Your task to perform on an android device: Open the calendar app, open the side menu, and click the "Day" option Image 0: 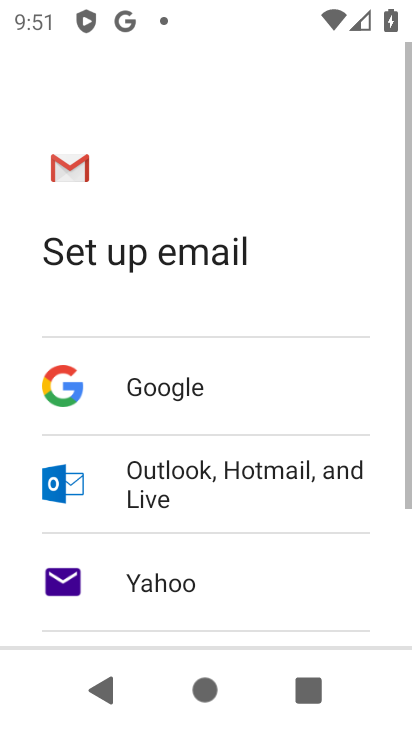
Step 0: press back button
Your task to perform on an android device: Open the calendar app, open the side menu, and click the "Day" option Image 1: 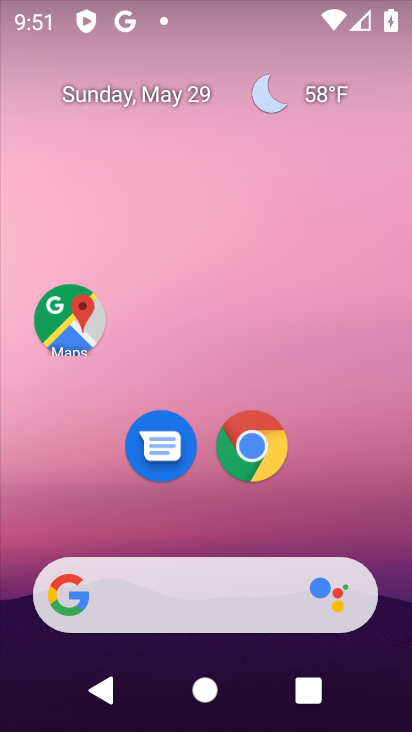
Step 1: drag from (367, 487) to (239, 0)
Your task to perform on an android device: Open the calendar app, open the side menu, and click the "Day" option Image 2: 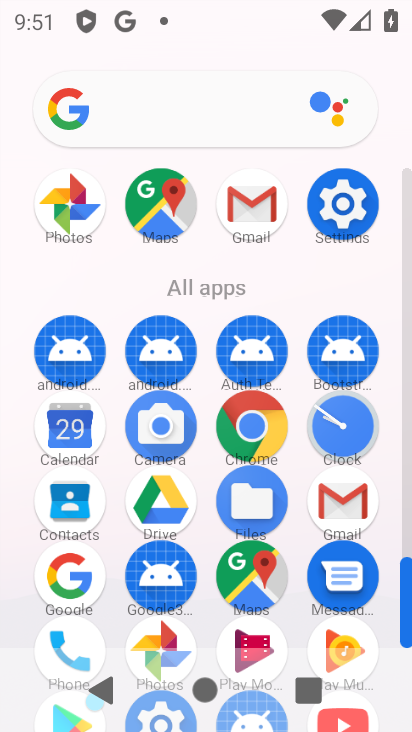
Step 2: drag from (16, 621) to (11, 296)
Your task to perform on an android device: Open the calendar app, open the side menu, and click the "Day" option Image 3: 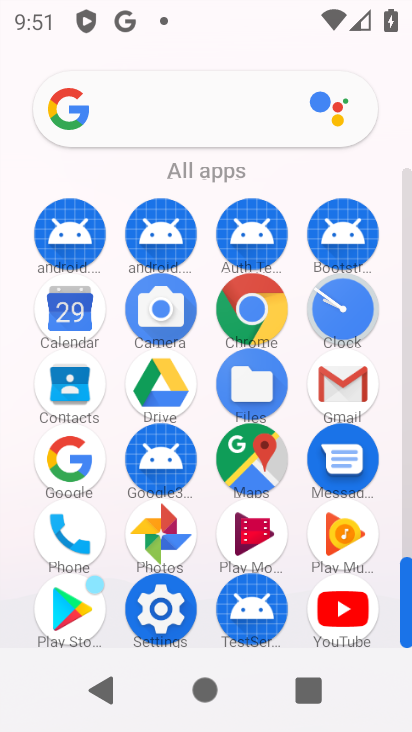
Step 3: click (64, 305)
Your task to perform on an android device: Open the calendar app, open the side menu, and click the "Day" option Image 4: 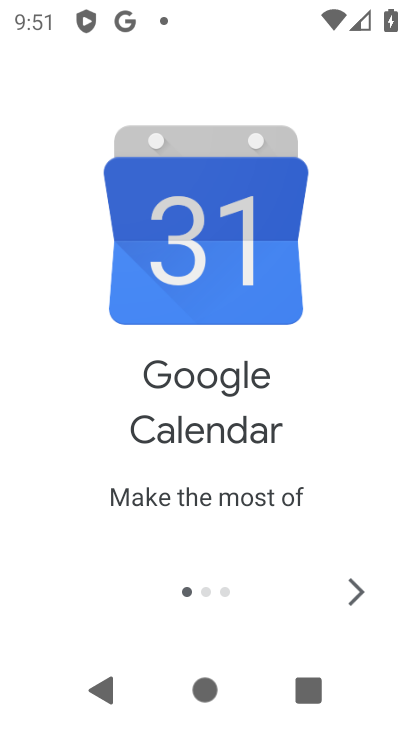
Step 4: click (362, 586)
Your task to perform on an android device: Open the calendar app, open the side menu, and click the "Day" option Image 5: 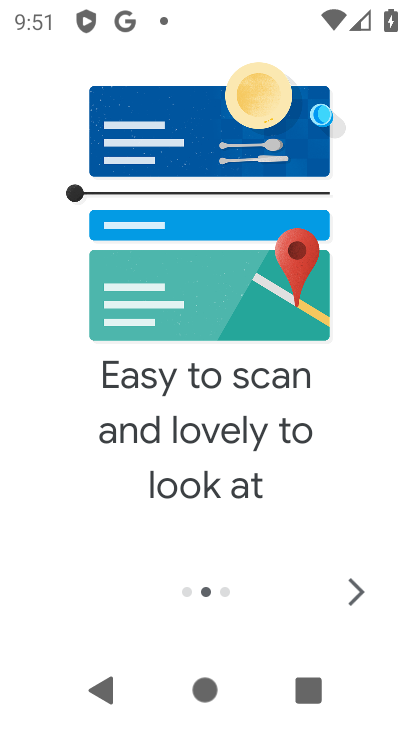
Step 5: click (362, 586)
Your task to perform on an android device: Open the calendar app, open the side menu, and click the "Day" option Image 6: 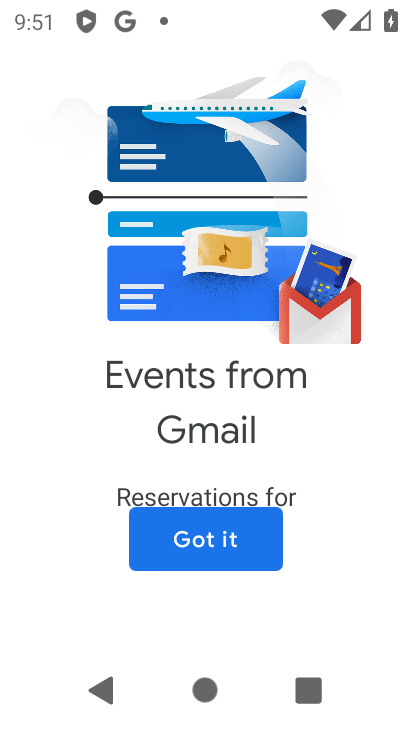
Step 6: click (238, 536)
Your task to perform on an android device: Open the calendar app, open the side menu, and click the "Day" option Image 7: 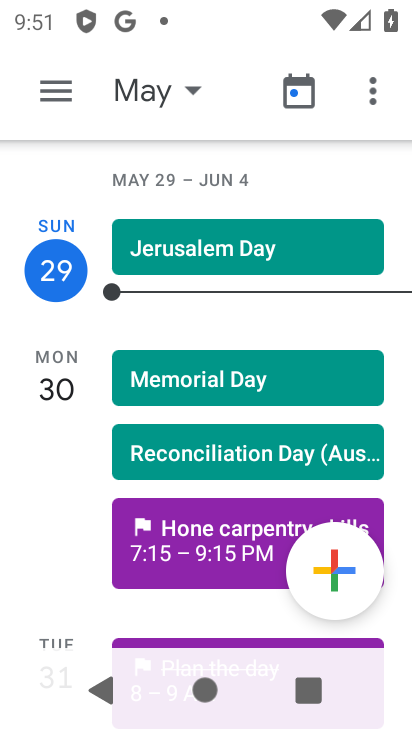
Step 7: click (67, 73)
Your task to perform on an android device: Open the calendar app, open the side menu, and click the "Day" option Image 8: 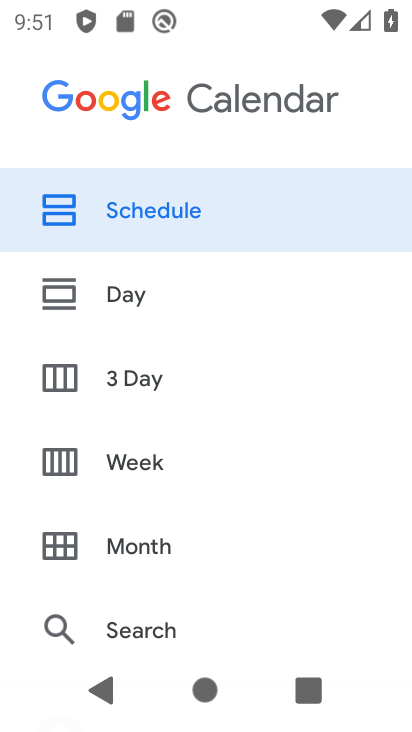
Step 8: click (130, 305)
Your task to perform on an android device: Open the calendar app, open the side menu, and click the "Day" option Image 9: 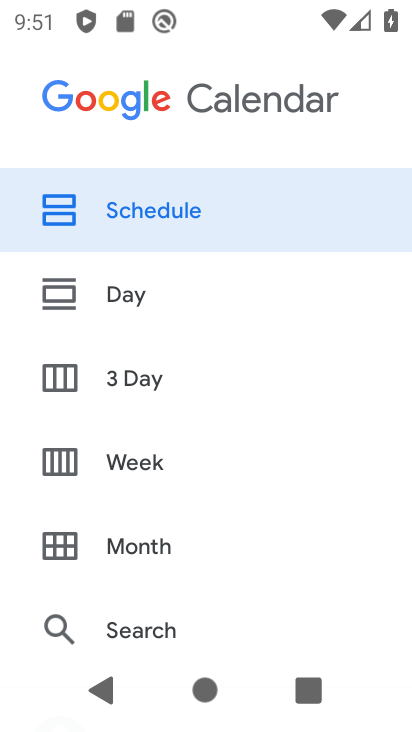
Step 9: click (130, 300)
Your task to perform on an android device: Open the calendar app, open the side menu, and click the "Day" option Image 10: 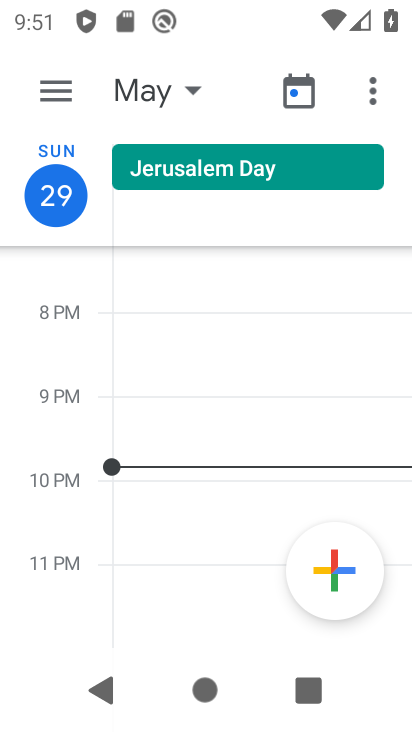
Step 10: task complete